Your task to perform on an android device: Clear the shopping cart on newegg.com. Add logitech g502 to the cart on newegg.com, then select checkout. Image 0: 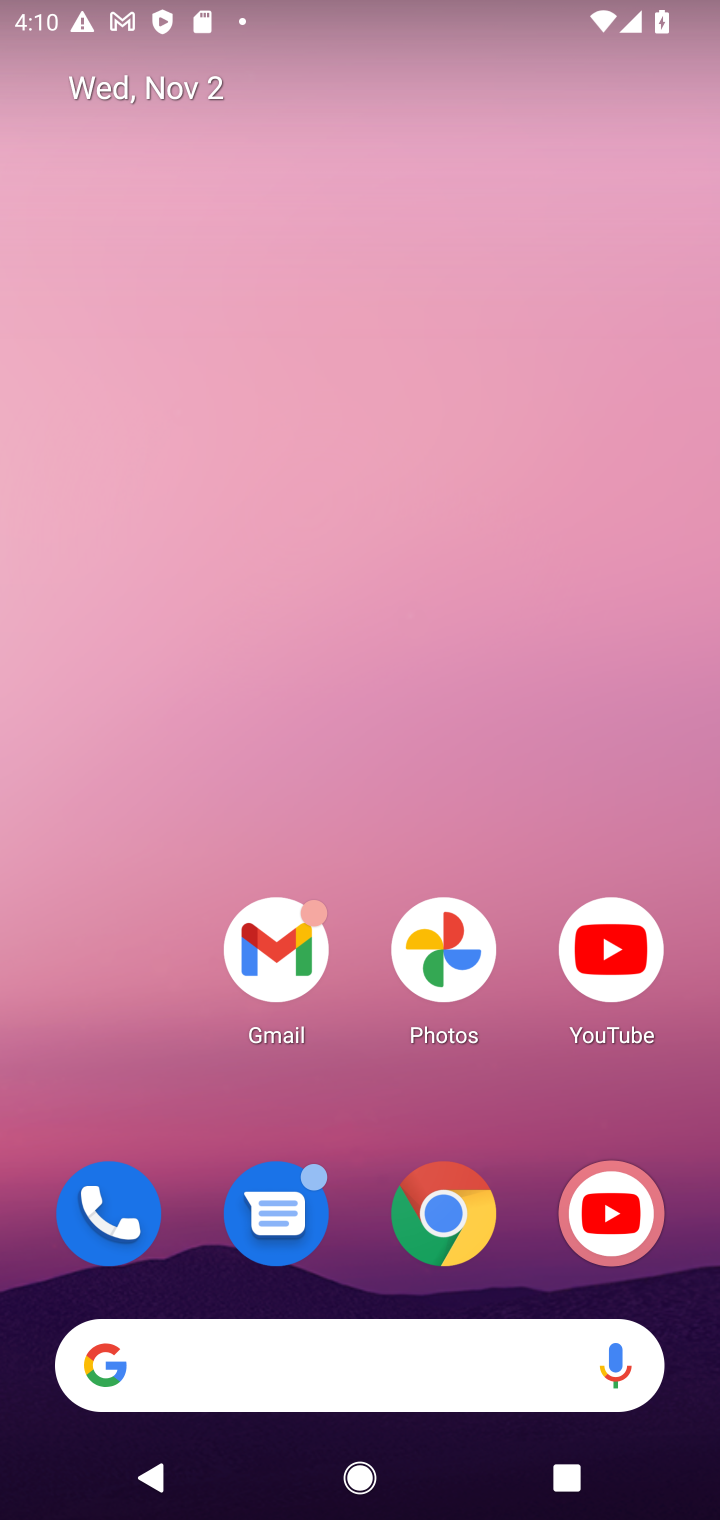
Step 0: press home button
Your task to perform on an android device: Clear the shopping cart on newegg.com. Add logitech g502 to the cart on newegg.com, then select checkout. Image 1: 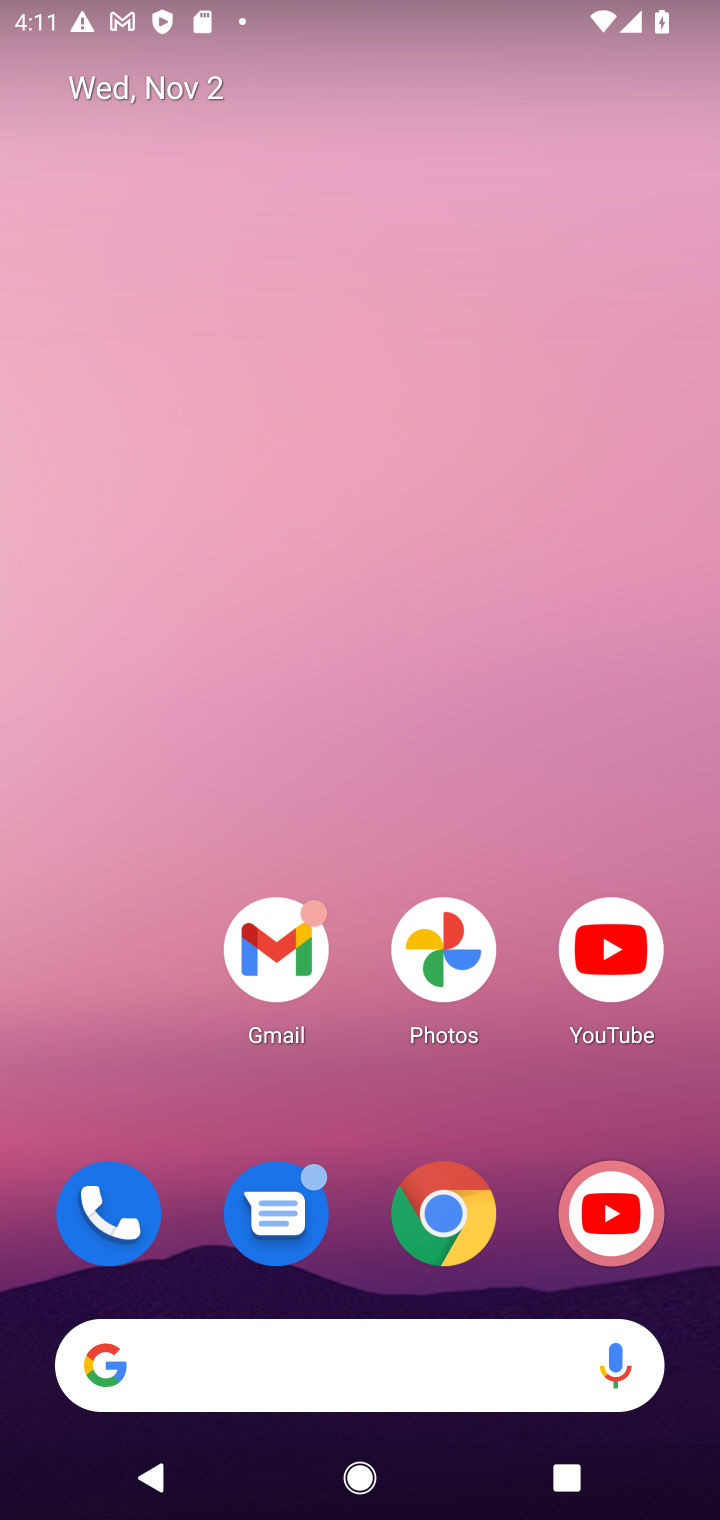
Step 1: drag from (382, 1120) to (443, 501)
Your task to perform on an android device: Clear the shopping cart on newegg.com. Add logitech g502 to the cart on newegg.com, then select checkout. Image 2: 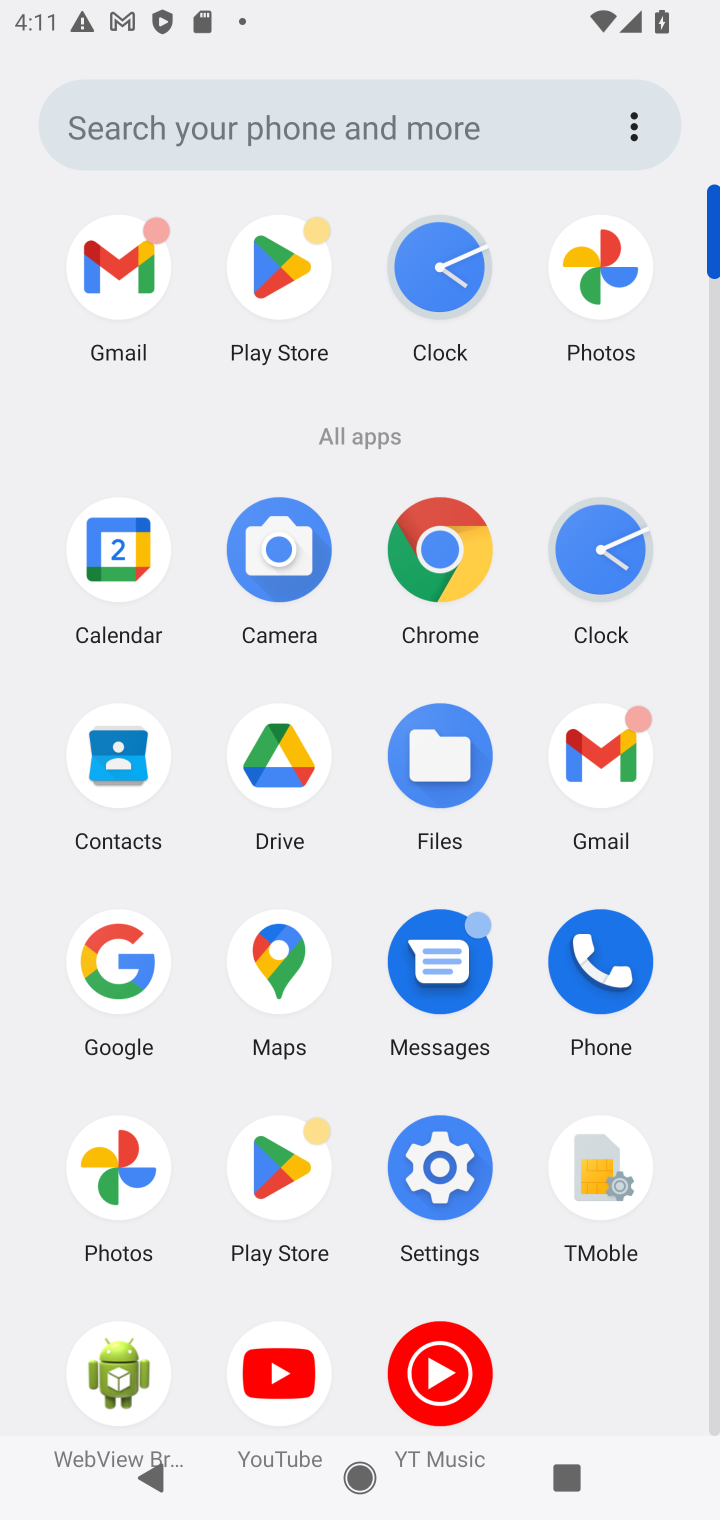
Step 2: click (108, 1010)
Your task to perform on an android device: Clear the shopping cart on newegg.com. Add logitech g502 to the cart on newegg.com, then select checkout. Image 3: 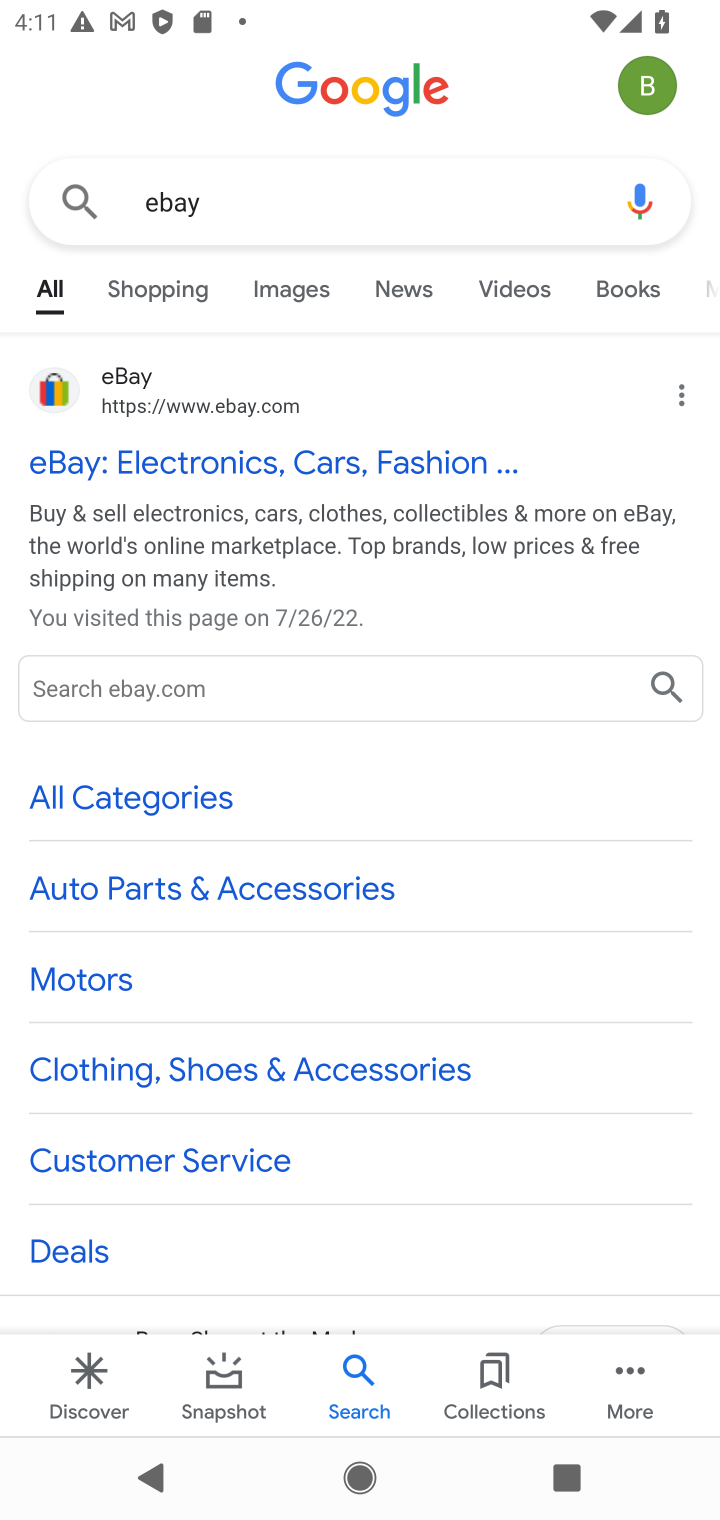
Step 3: click (448, 219)
Your task to perform on an android device: Clear the shopping cart on newegg.com. Add logitech g502 to the cart on newegg.com, then select checkout. Image 4: 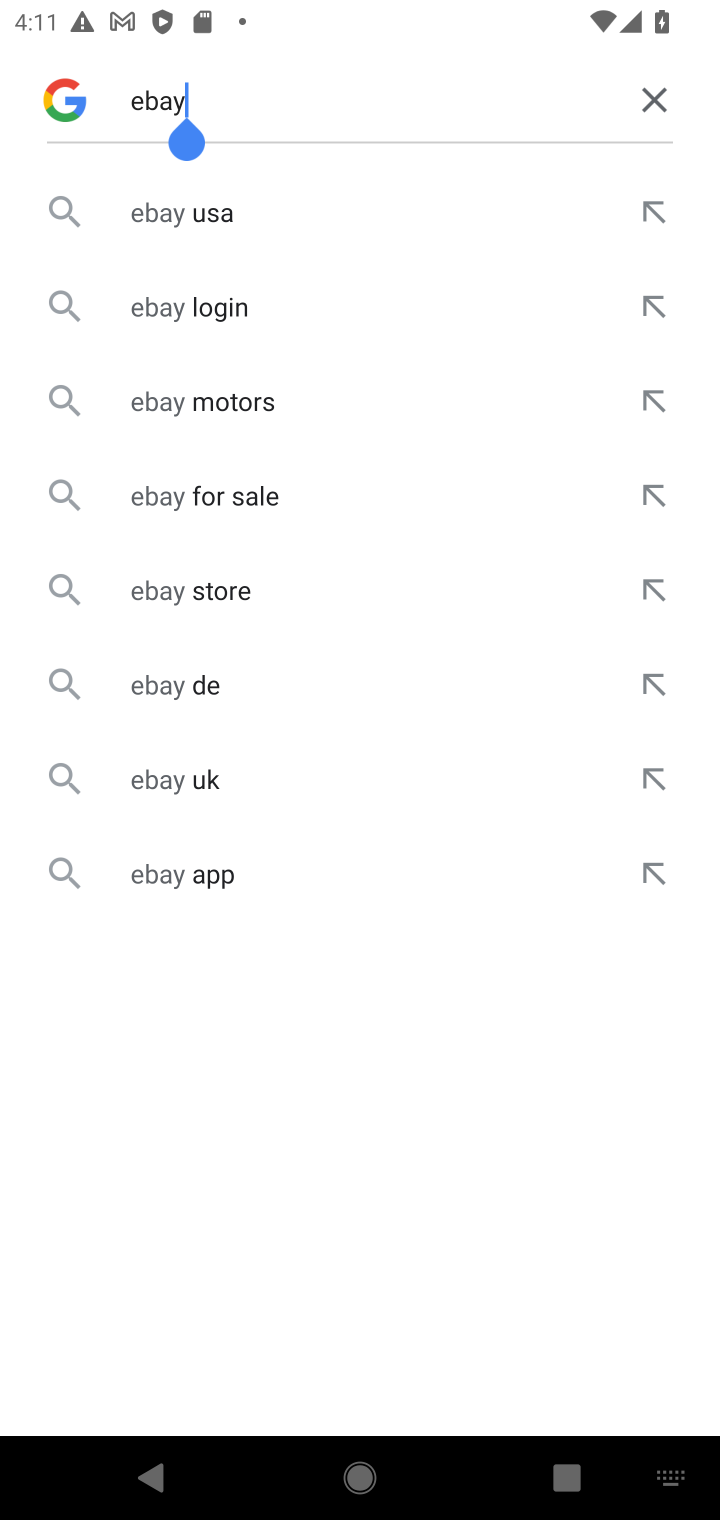
Step 4: click (656, 108)
Your task to perform on an android device: Clear the shopping cart on newegg.com. Add logitech g502 to the cart on newegg.com, then select checkout. Image 5: 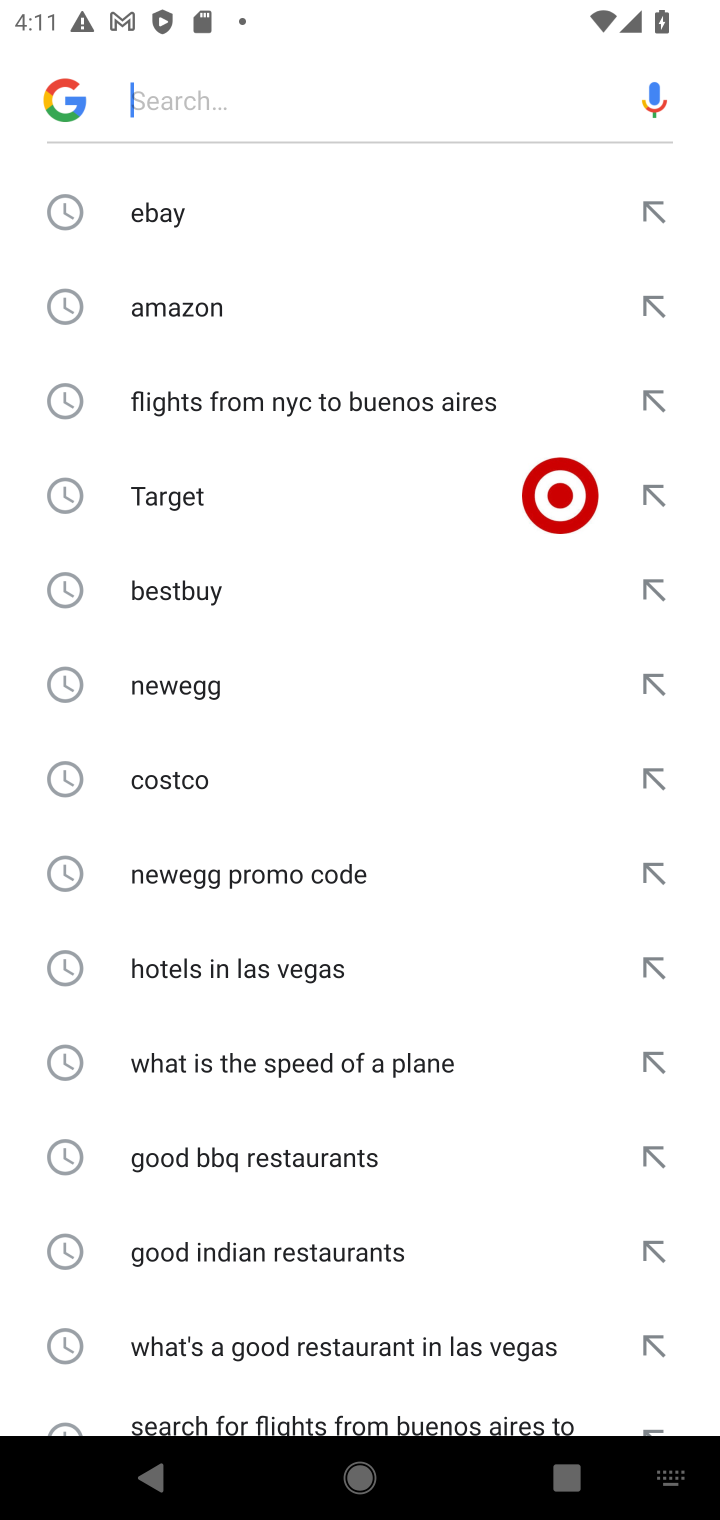
Step 5: type "newegg.com"
Your task to perform on an android device: Clear the shopping cart on newegg.com. Add logitech g502 to the cart on newegg.com, then select checkout. Image 6: 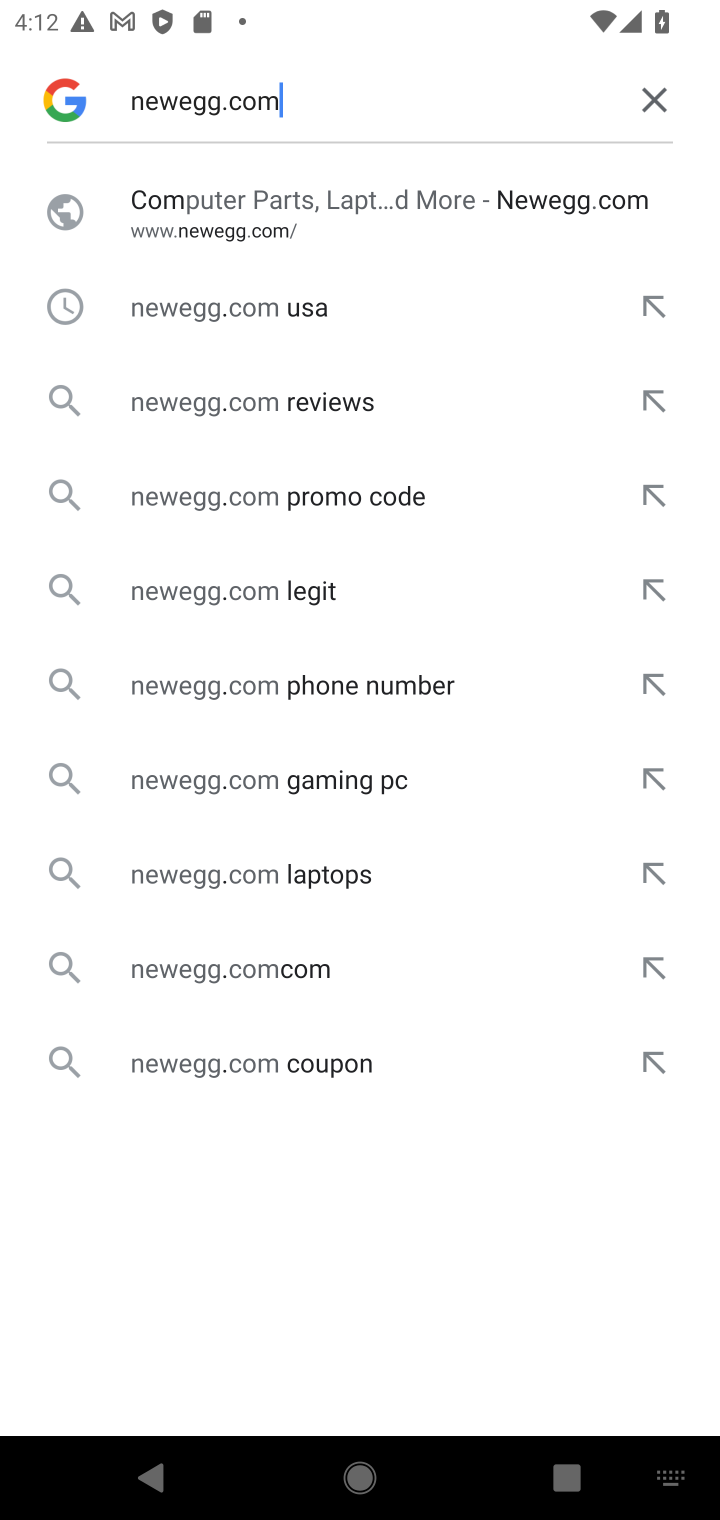
Step 6: click (366, 223)
Your task to perform on an android device: Clear the shopping cart on newegg.com. Add logitech g502 to the cart on newegg.com, then select checkout. Image 7: 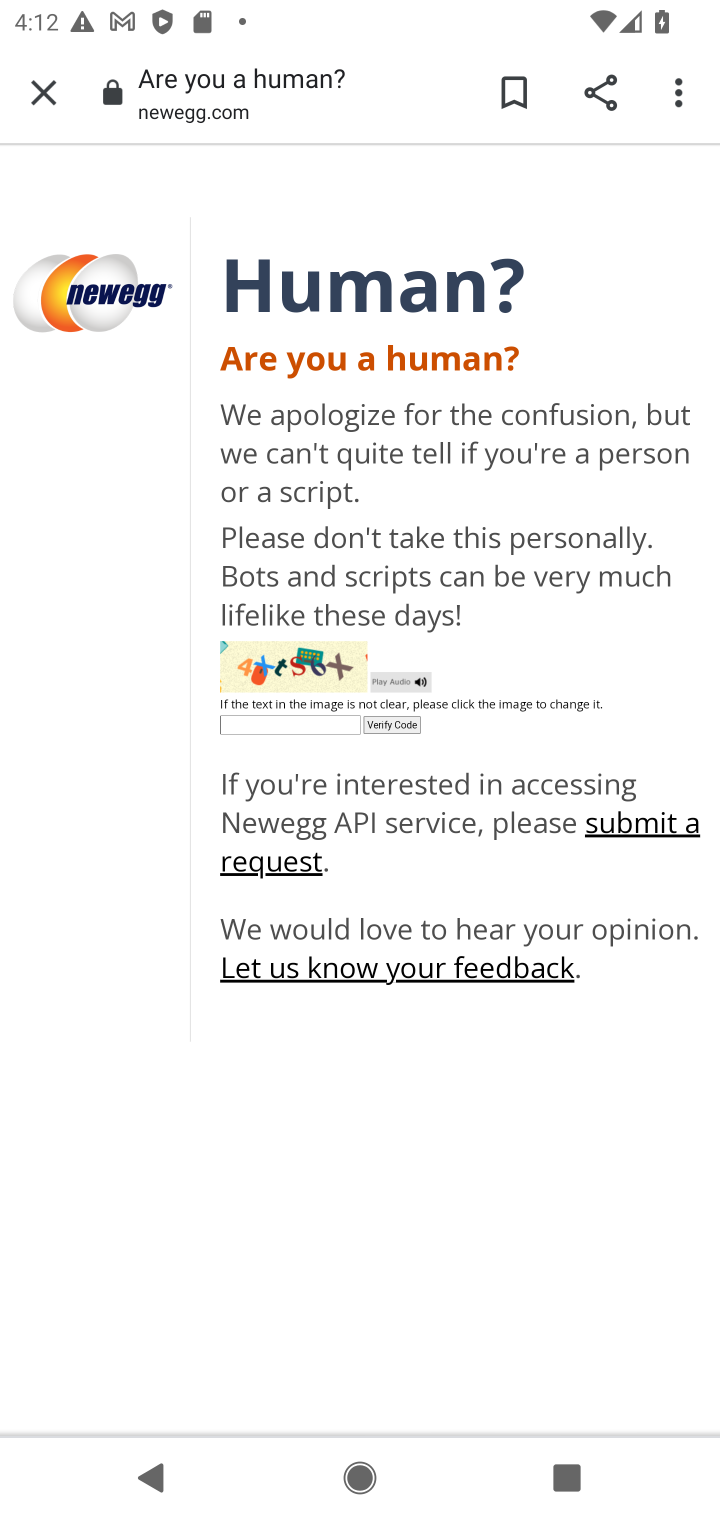
Step 7: task complete